Your task to perform on an android device: turn on data saver in the chrome app Image 0: 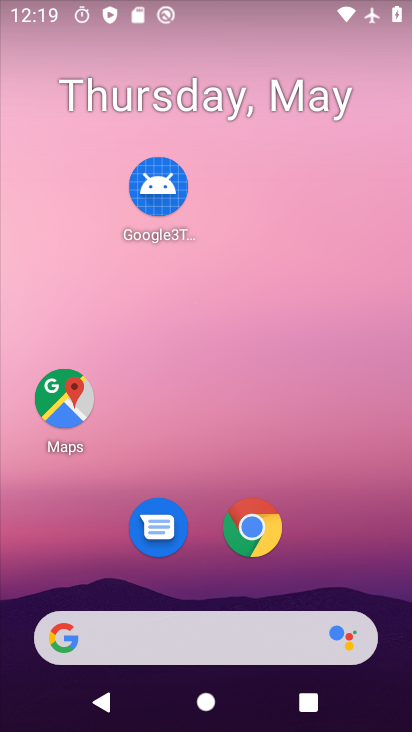
Step 0: click (250, 519)
Your task to perform on an android device: turn on data saver in the chrome app Image 1: 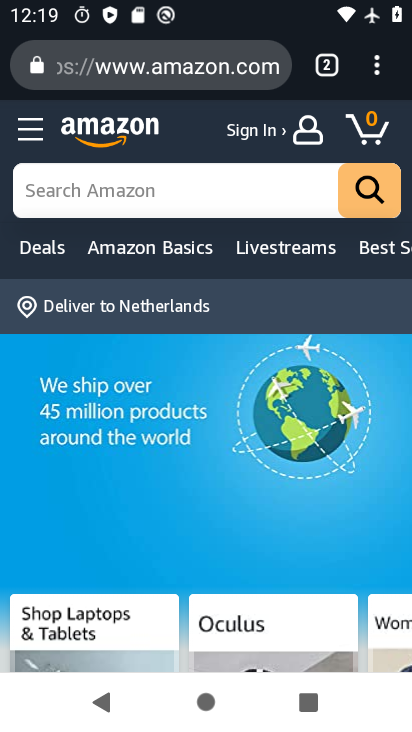
Step 1: press home button
Your task to perform on an android device: turn on data saver in the chrome app Image 2: 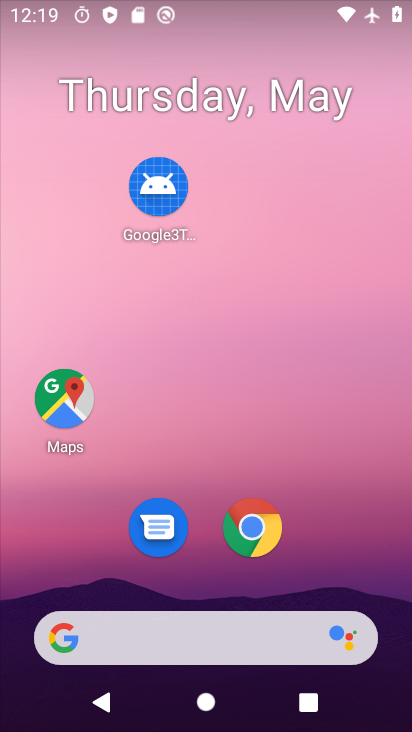
Step 2: click (252, 523)
Your task to perform on an android device: turn on data saver in the chrome app Image 3: 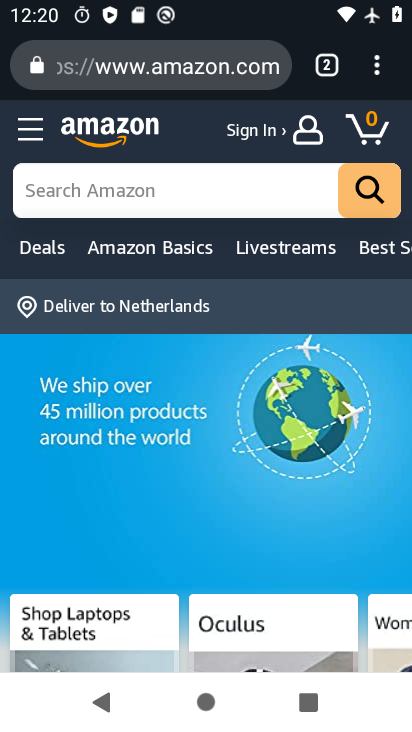
Step 3: click (376, 57)
Your task to perform on an android device: turn on data saver in the chrome app Image 4: 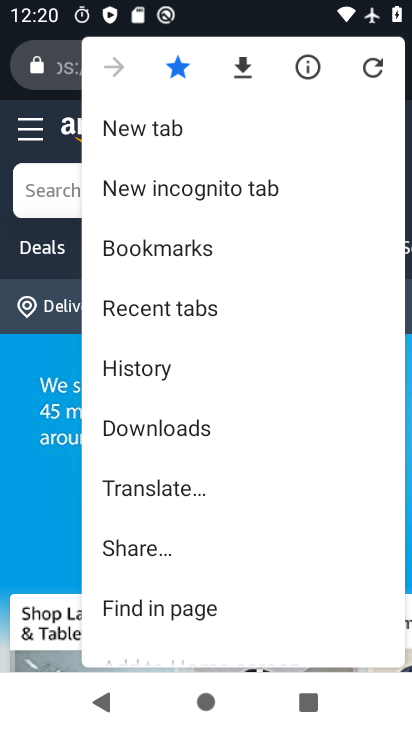
Step 4: drag from (242, 568) to (306, 180)
Your task to perform on an android device: turn on data saver in the chrome app Image 5: 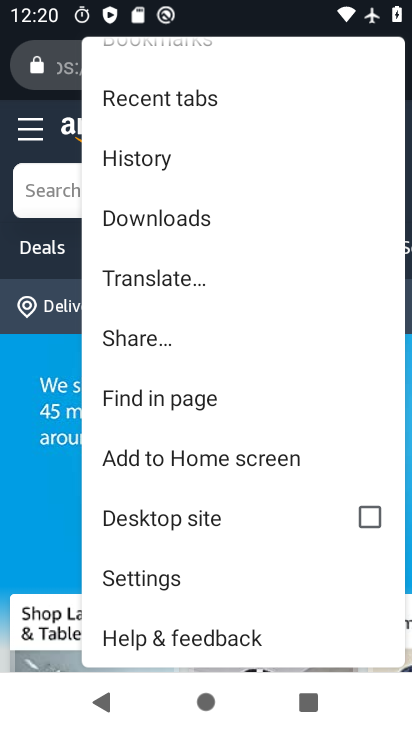
Step 5: click (195, 578)
Your task to perform on an android device: turn on data saver in the chrome app Image 6: 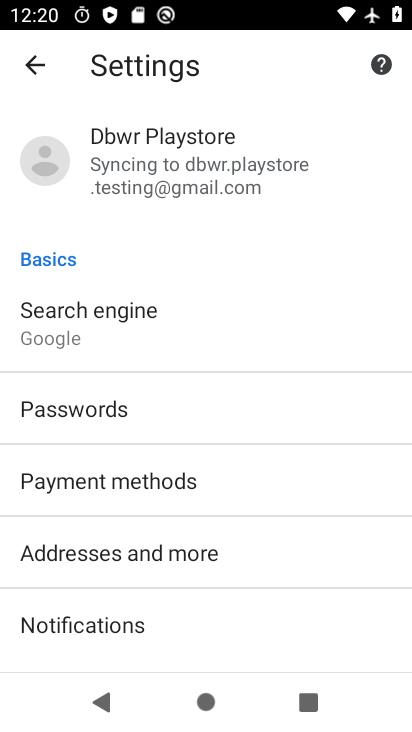
Step 6: drag from (208, 598) to (244, 177)
Your task to perform on an android device: turn on data saver in the chrome app Image 7: 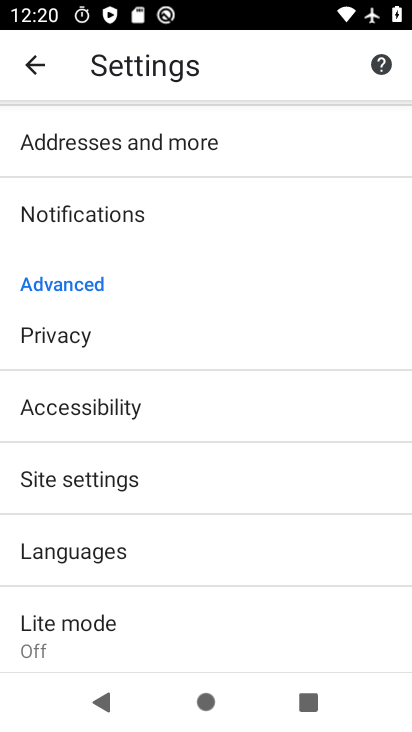
Step 7: click (168, 630)
Your task to perform on an android device: turn on data saver in the chrome app Image 8: 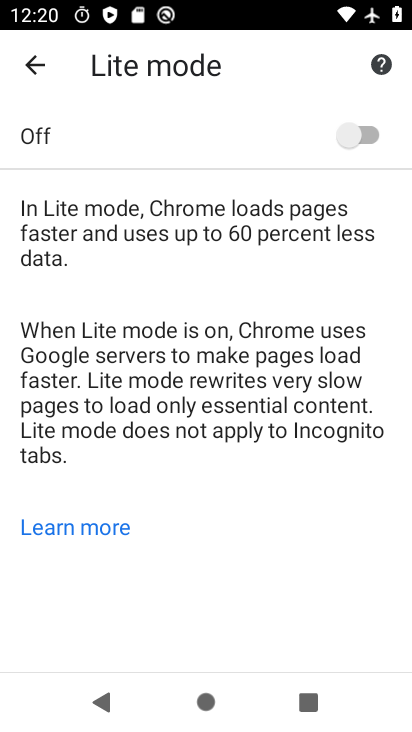
Step 8: click (360, 134)
Your task to perform on an android device: turn on data saver in the chrome app Image 9: 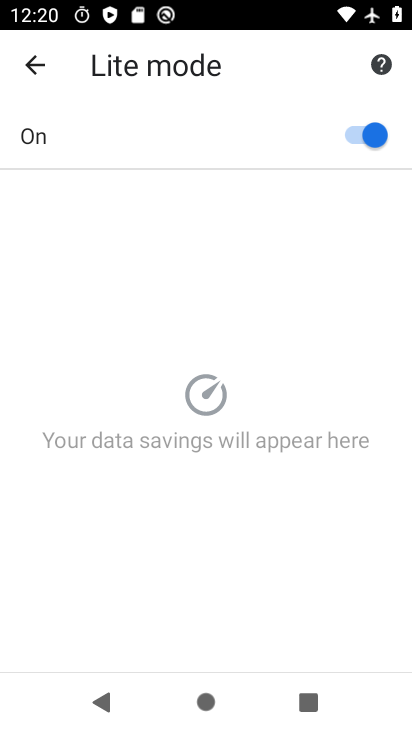
Step 9: task complete